Your task to perform on an android device: Open Wikipedia Image 0: 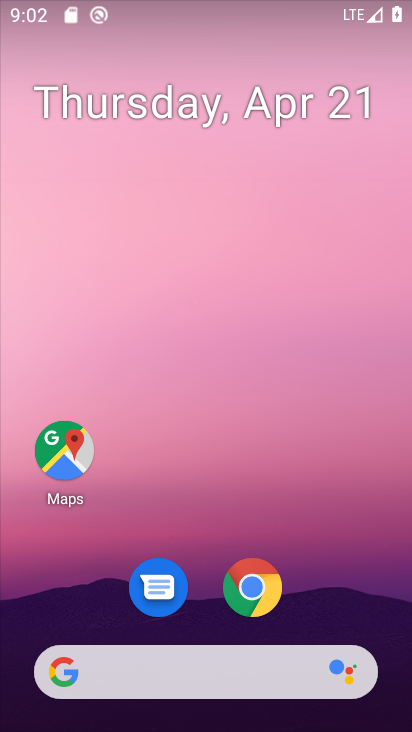
Step 0: click (249, 582)
Your task to perform on an android device: Open Wikipedia Image 1: 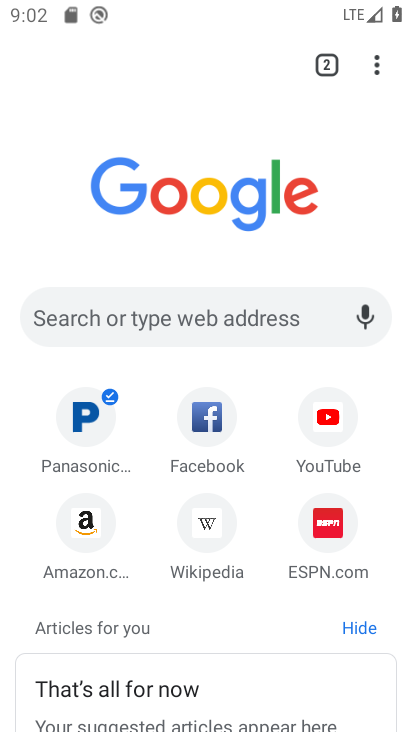
Step 1: click (134, 306)
Your task to perform on an android device: Open Wikipedia Image 2: 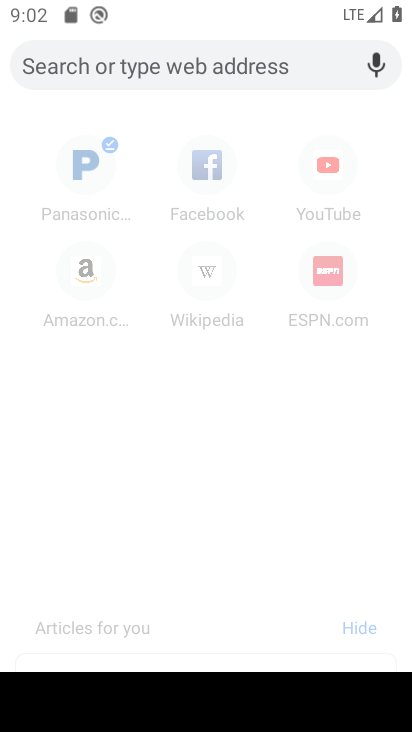
Step 2: type "Wikipedia"
Your task to perform on an android device: Open Wikipedia Image 3: 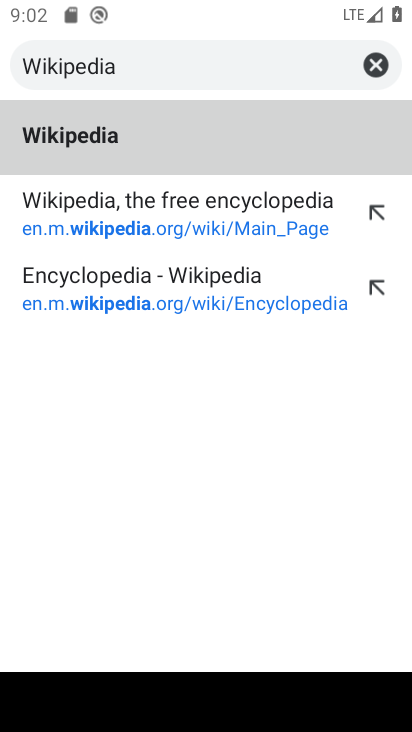
Step 3: click (95, 201)
Your task to perform on an android device: Open Wikipedia Image 4: 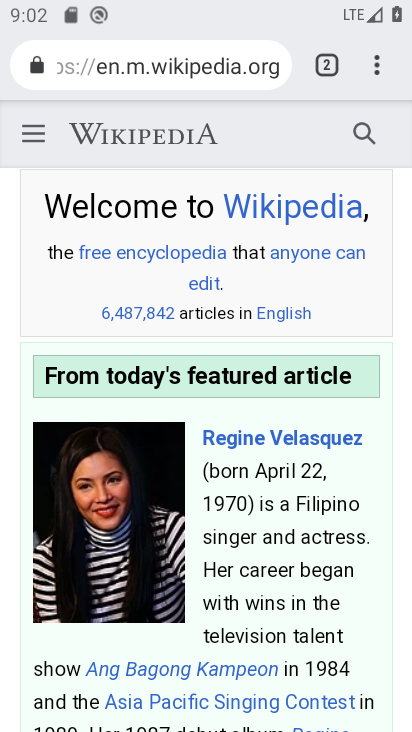
Step 4: task complete